Your task to perform on an android device: open app "Contacts" Image 0: 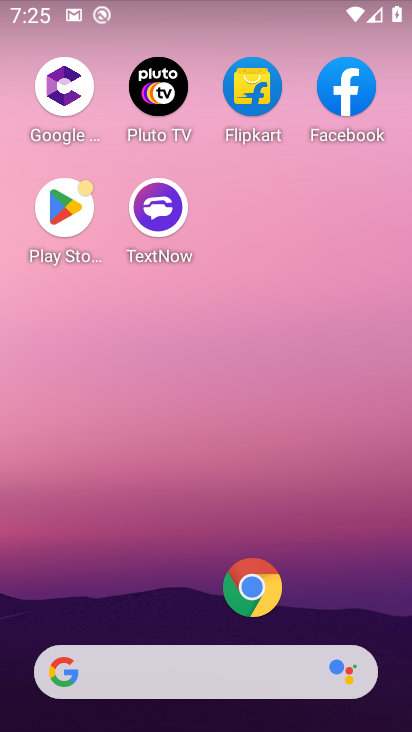
Step 0: drag from (144, 613) to (149, 381)
Your task to perform on an android device: open app "Contacts" Image 1: 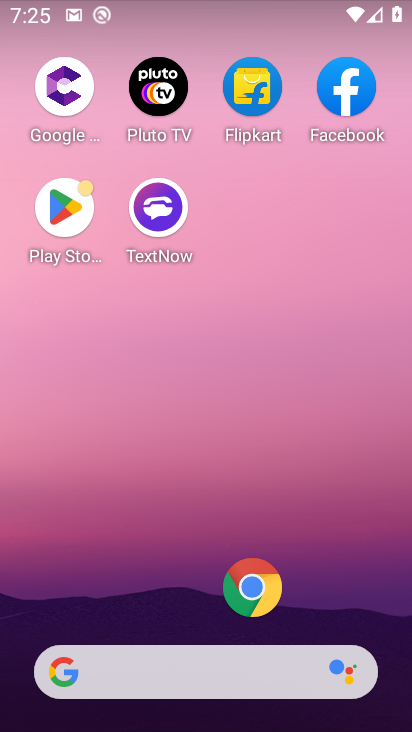
Step 1: click (67, 199)
Your task to perform on an android device: open app "Contacts" Image 2: 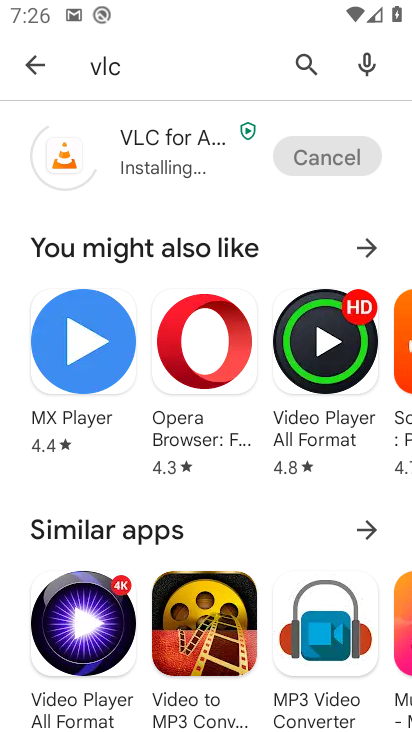
Step 2: click (313, 57)
Your task to perform on an android device: open app "Contacts" Image 3: 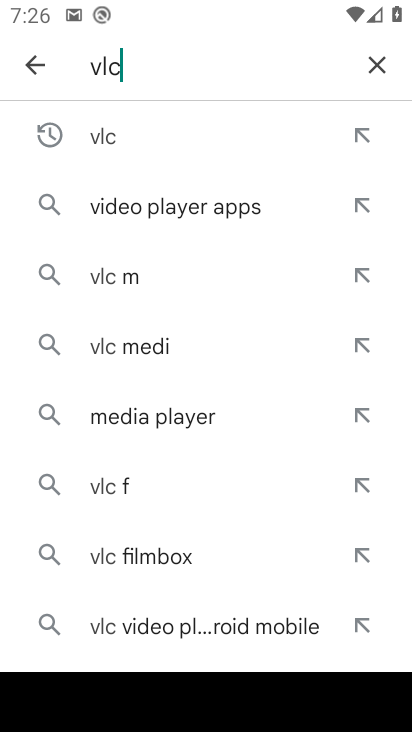
Step 3: click (374, 57)
Your task to perform on an android device: open app "Contacts" Image 4: 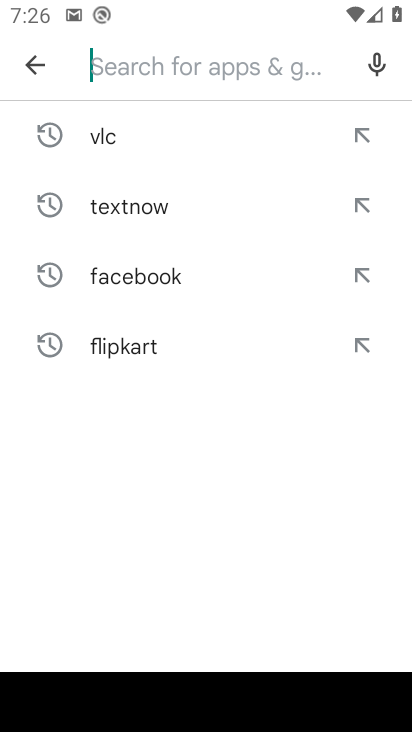
Step 4: type "contact"
Your task to perform on an android device: open app "Contacts" Image 5: 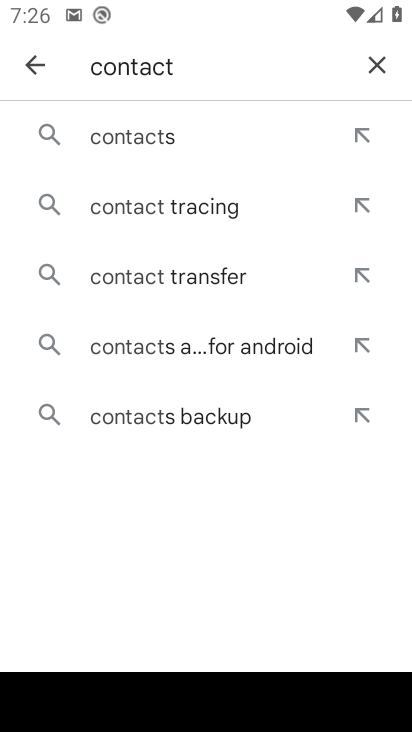
Step 5: click (171, 133)
Your task to perform on an android device: open app "Contacts" Image 6: 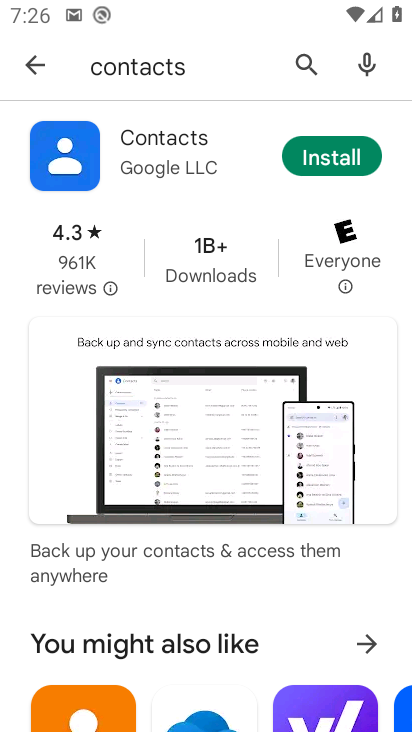
Step 6: click (311, 145)
Your task to perform on an android device: open app "Contacts" Image 7: 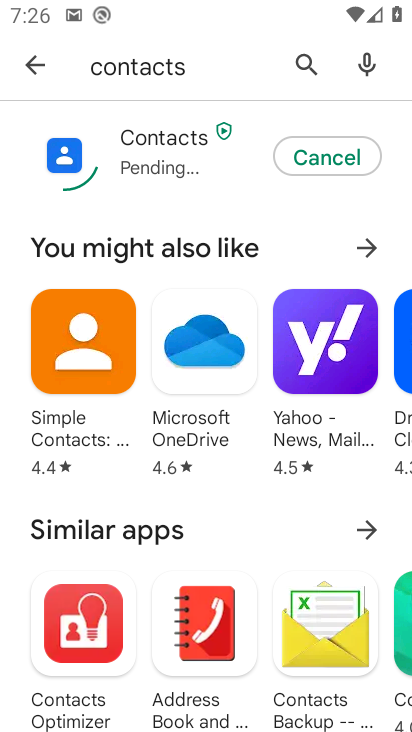
Step 7: task complete